Your task to perform on an android device: Add "razer deathadder" to the cart on costco Image 0: 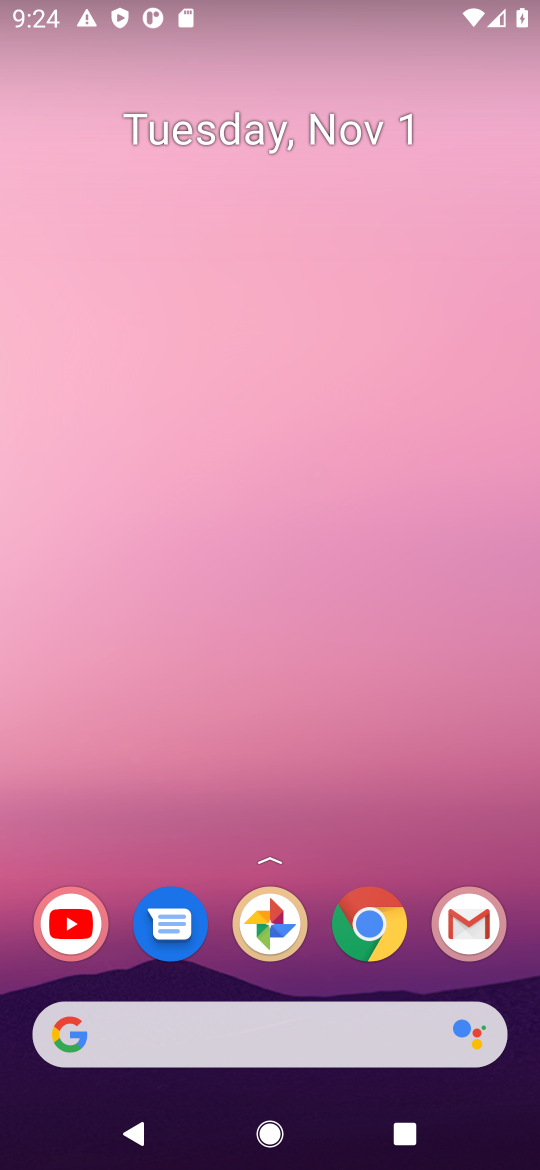
Step 0: click (368, 921)
Your task to perform on an android device: Add "razer deathadder" to the cart on costco Image 1: 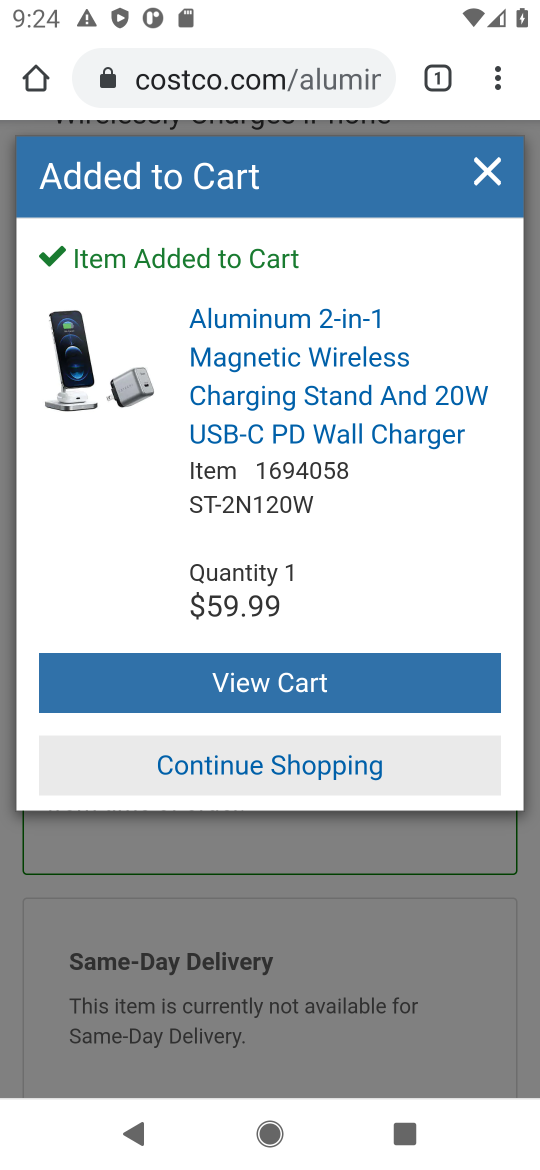
Step 1: click (384, 935)
Your task to perform on an android device: Add "razer deathadder" to the cart on costco Image 2: 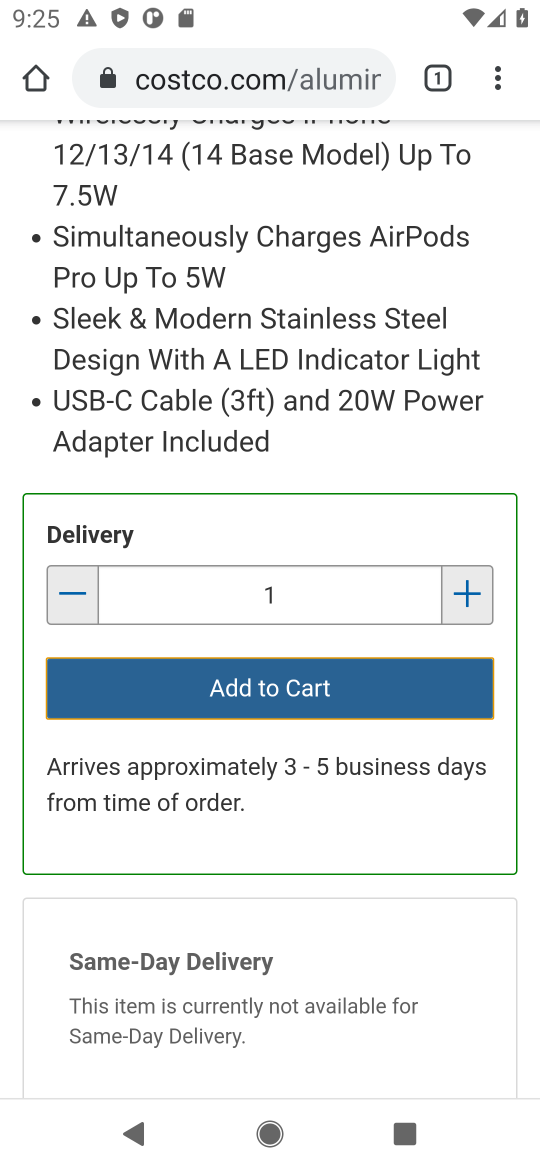
Step 2: click (270, 81)
Your task to perform on an android device: Add "razer deathadder" to the cart on costco Image 3: 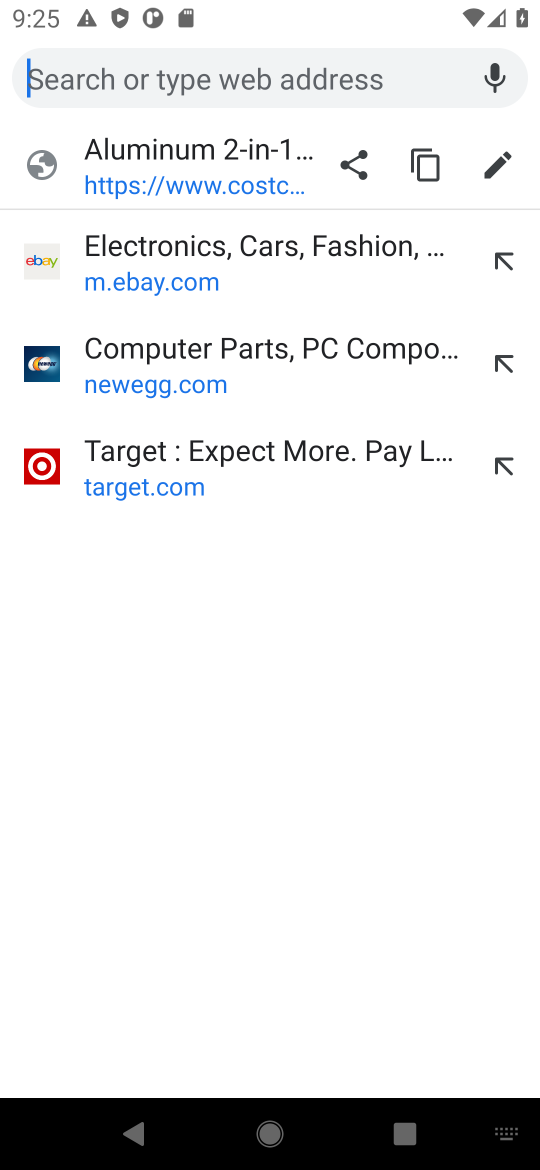
Step 3: type "costco"
Your task to perform on an android device: Add "razer deathadder" to the cart on costco Image 4: 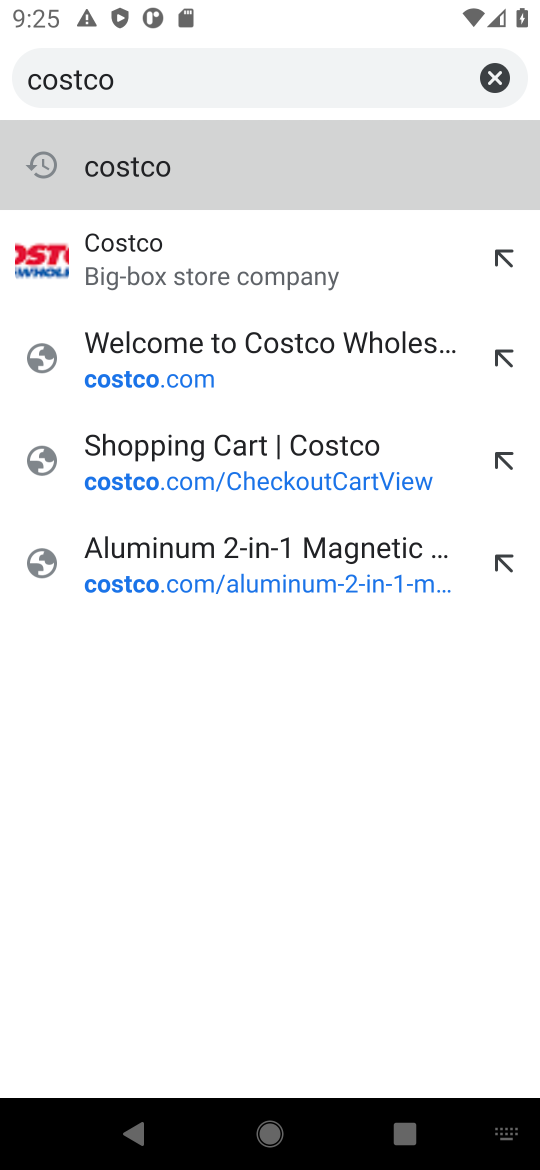
Step 4: click (209, 252)
Your task to perform on an android device: Add "razer deathadder" to the cart on costco Image 5: 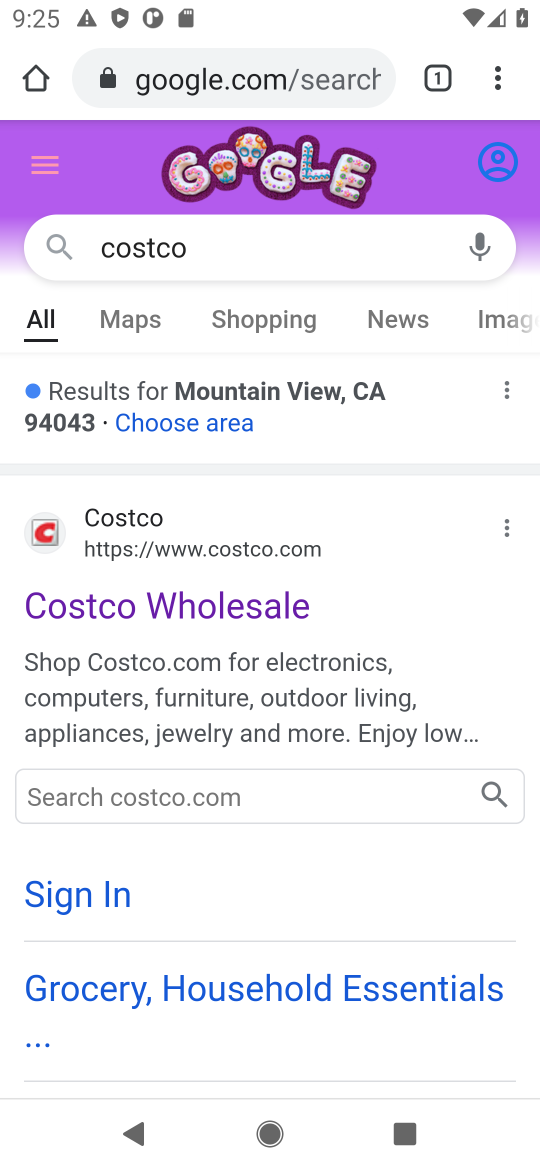
Step 5: click (129, 612)
Your task to perform on an android device: Add "razer deathadder" to the cart on costco Image 6: 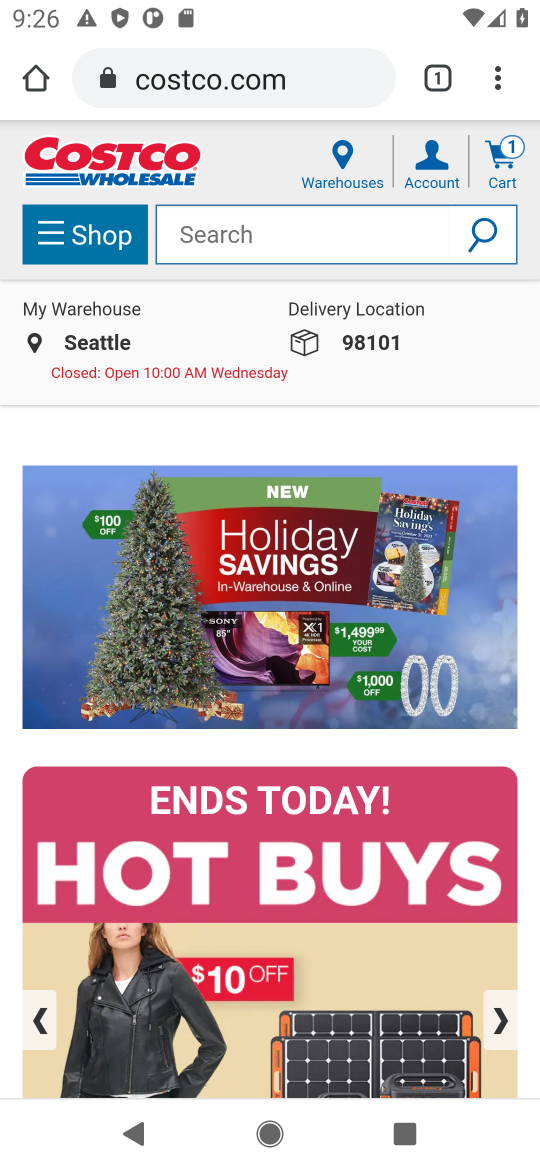
Step 6: click (368, 232)
Your task to perform on an android device: Add "razer deathadder" to the cart on costco Image 7: 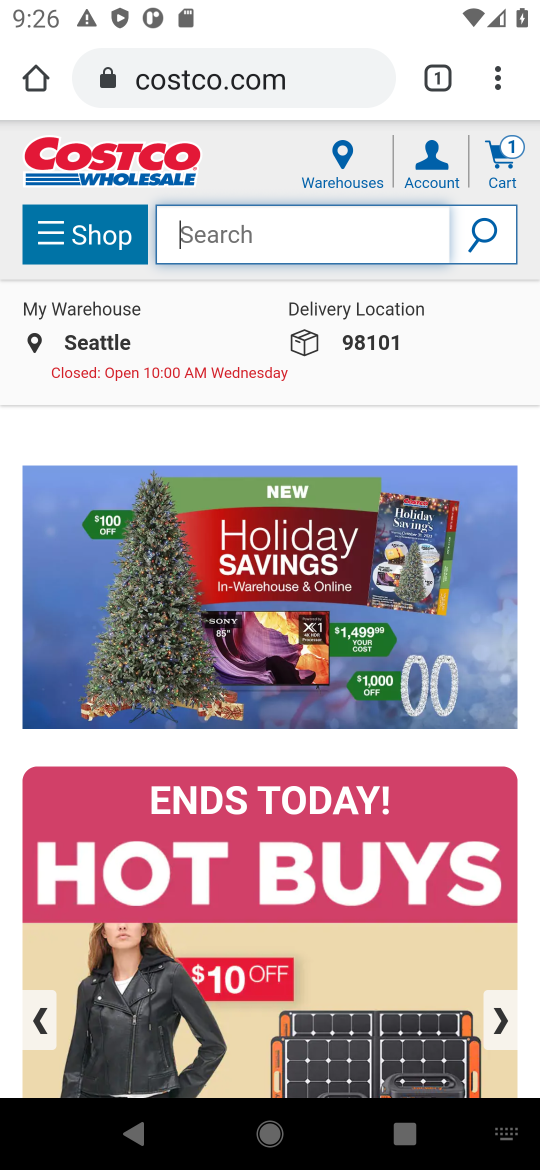
Step 7: type "razer deathadder"
Your task to perform on an android device: Add "razer deathadder" to the cart on costco Image 8: 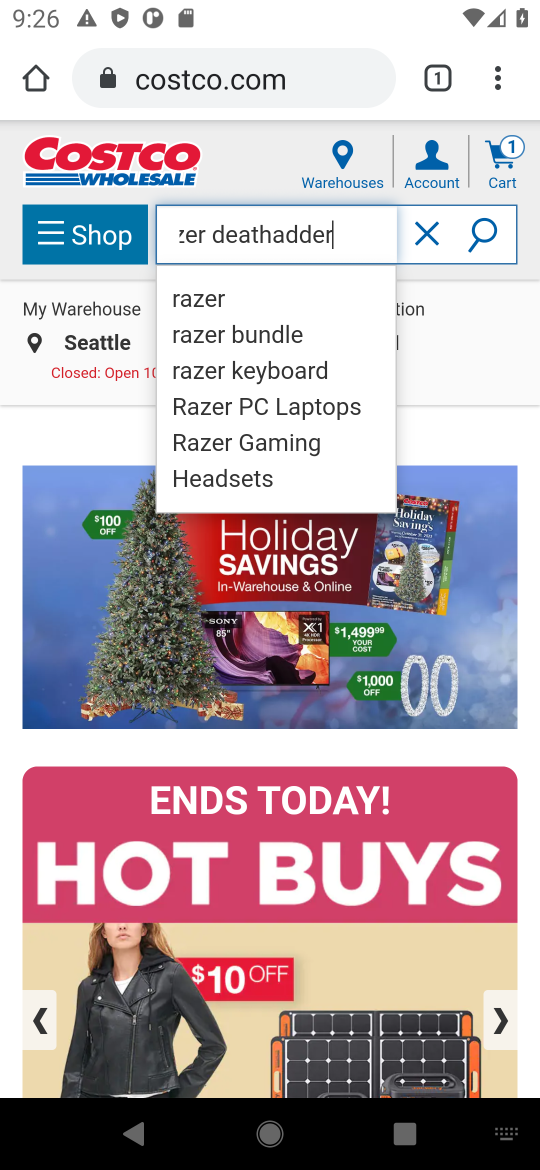
Step 8: press enter
Your task to perform on an android device: Add "razer deathadder" to the cart on costco Image 9: 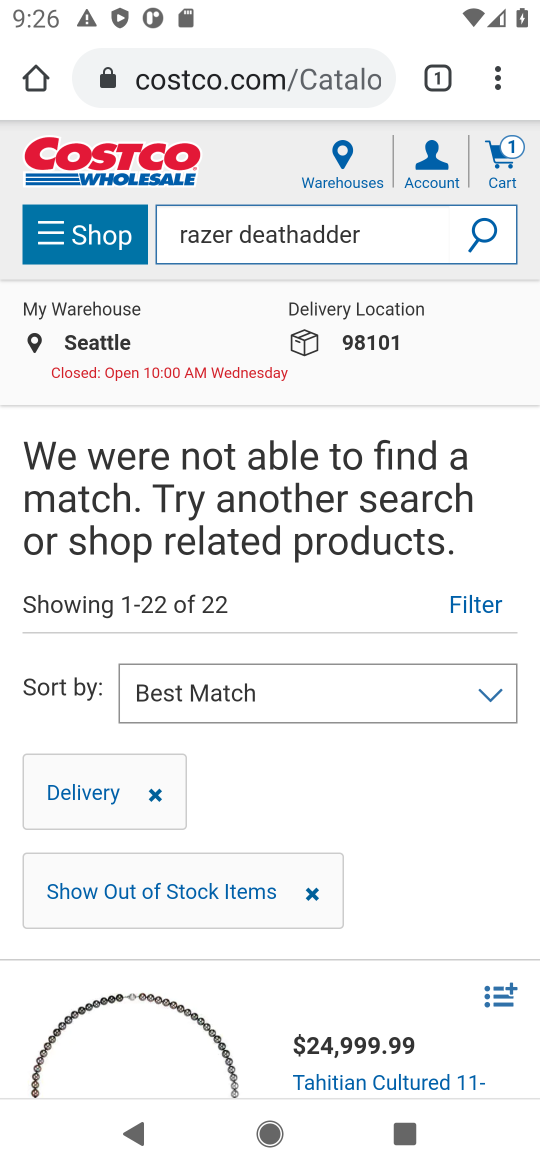
Step 9: task complete